Your task to perform on an android device: change the clock display to analog Image 0: 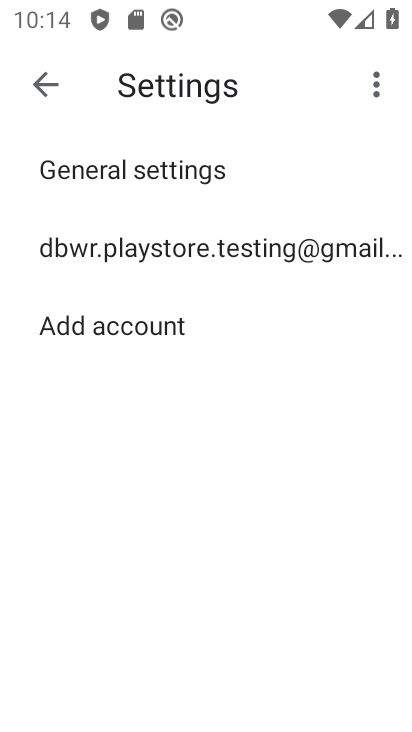
Step 0: press home button
Your task to perform on an android device: change the clock display to analog Image 1: 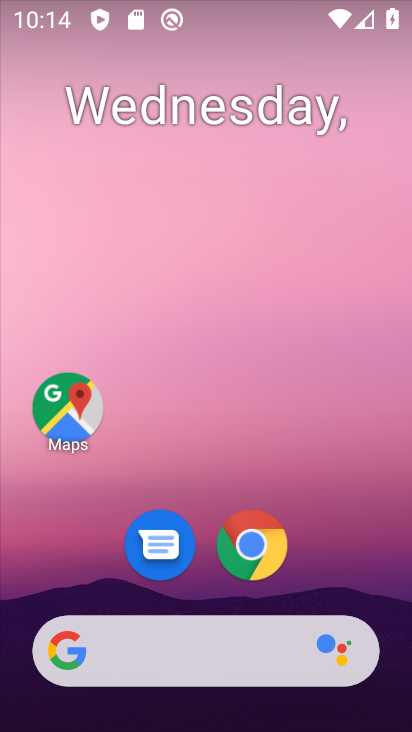
Step 1: drag from (223, 597) to (210, 220)
Your task to perform on an android device: change the clock display to analog Image 2: 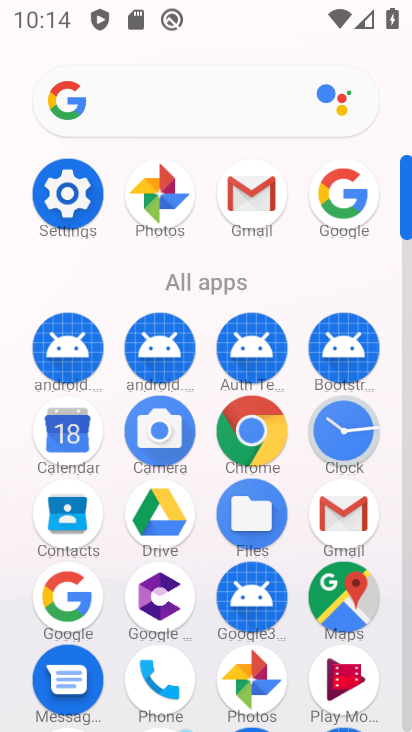
Step 2: click (331, 450)
Your task to perform on an android device: change the clock display to analog Image 3: 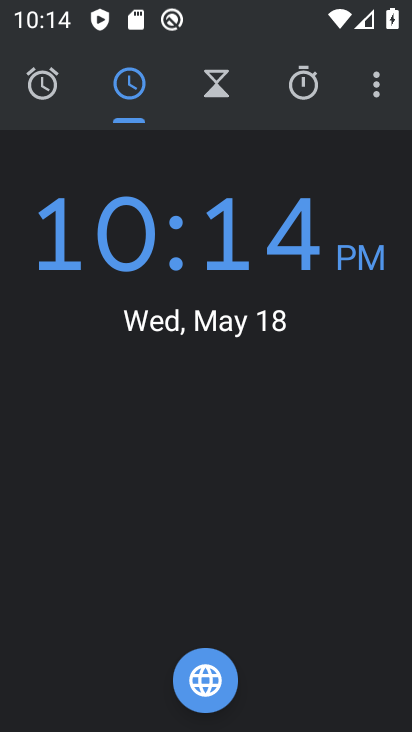
Step 3: click (371, 91)
Your task to perform on an android device: change the clock display to analog Image 4: 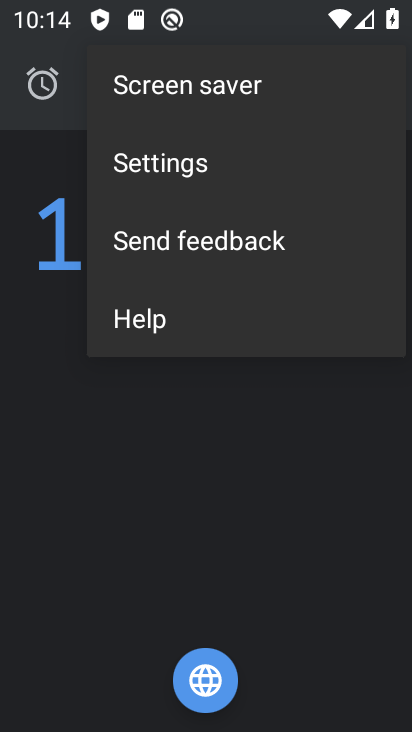
Step 4: click (224, 158)
Your task to perform on an android device: change the clock display to analog Image 5: 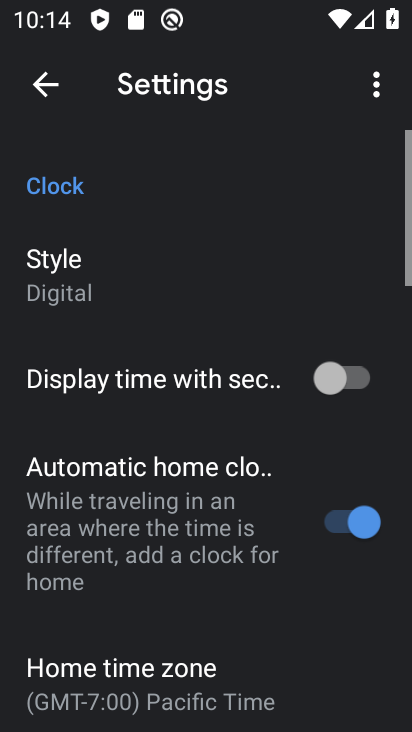
Step 5: click (122, 264)
Your task to perform on an android device: change the clock display to analog Image 6: 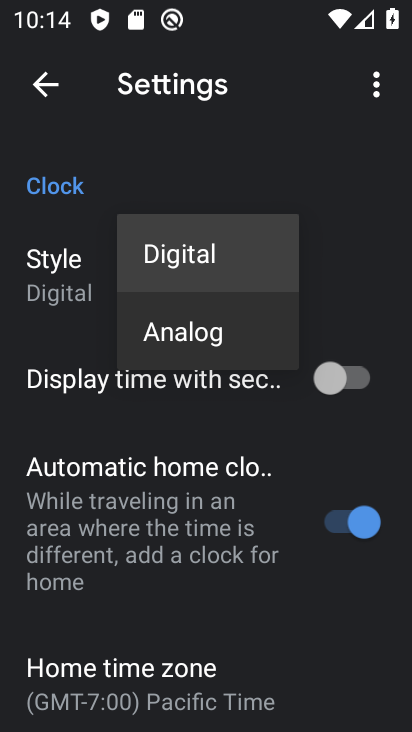
Step 6: click (194, 336)
Your task to perform on an android device: change the clock display to analog Image 7: 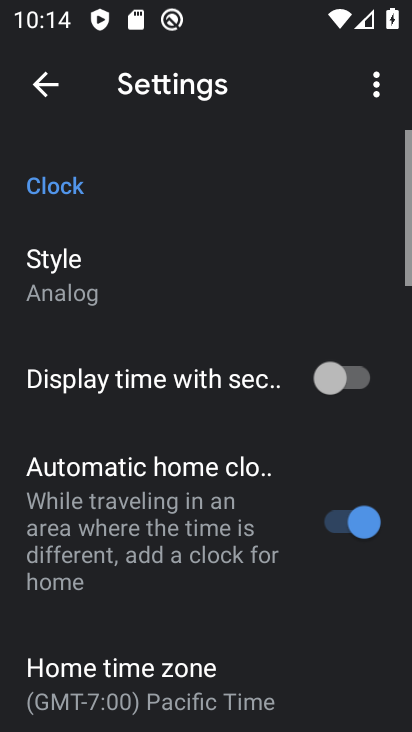
Step 7: task complete